Your task to perform on an android device: Show me popular videos on Youtube Image 0: 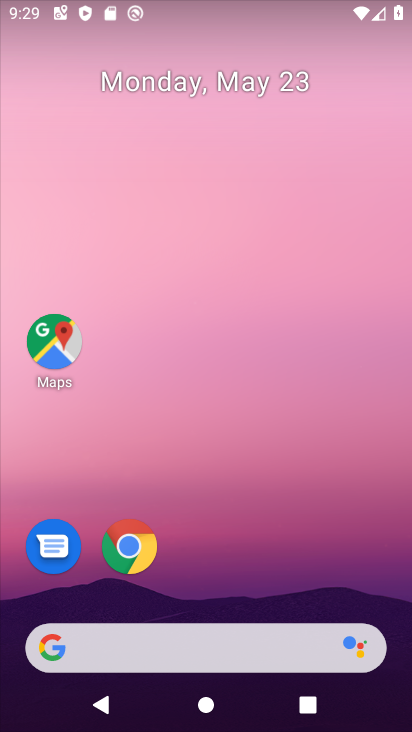
Step 0: drag from (350, 581) to (309, 49)
Your task to perform on an android device: Show me popular videos on Youtube Image 1: 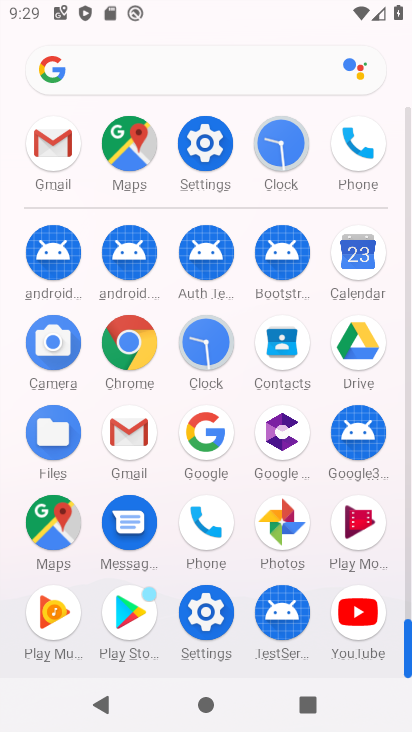
Step 1: click (353, 611)
Your task to perform on an android device: Show me popular videos on Youtube Image 2: 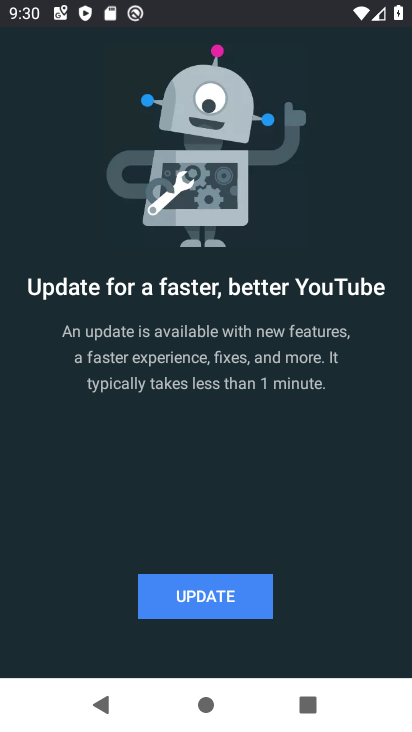
Step 2: click (223, 599)
Your task to perform on an android device: Show me popular videos on Youtube Image 3: 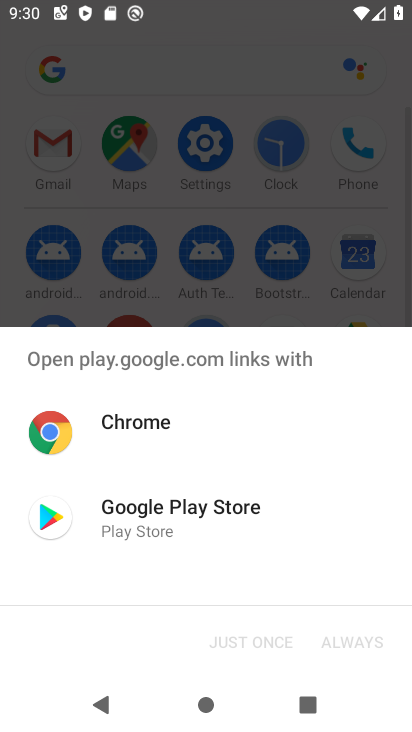
Step 3: click (120, 521)
Your task to perform on an android device: Show me popular videos on Youtube Image 4: 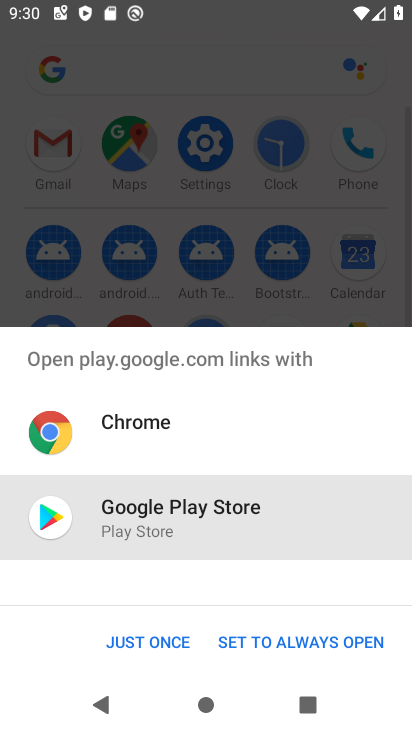
Step 4: click (162, 634)
Your task to perform on an android device: Show me popular videos on Youtube Image 5: 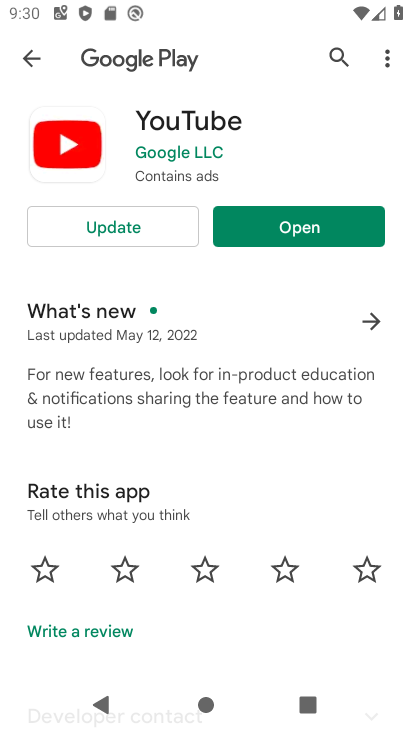
Step 5: click (116, 225)
Your task to perform on an android device: Show me popular videos on Youtube Image 6: 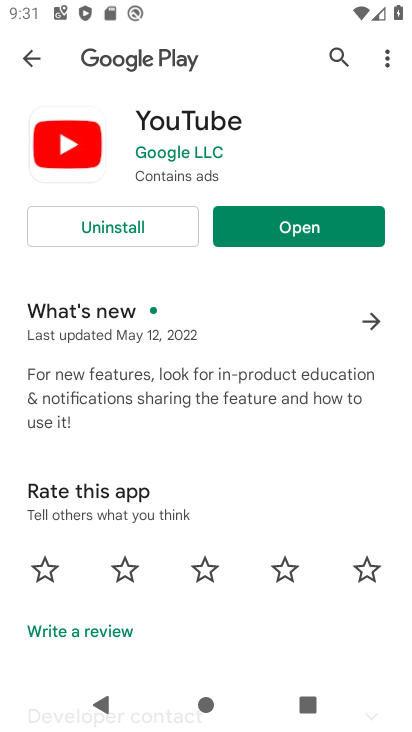
Step 6: click (275, 223)
Your task to perform on an android device: Show me popular videos on Youtube Image 7: 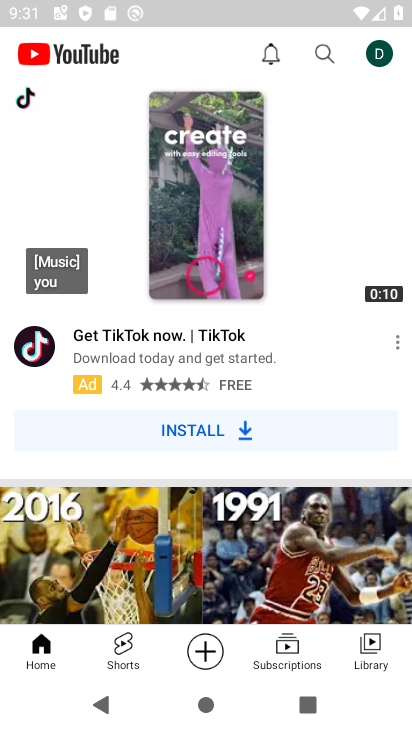
Step 7: task complete